Your task to perform on an android device: Go to location settings Image 0: 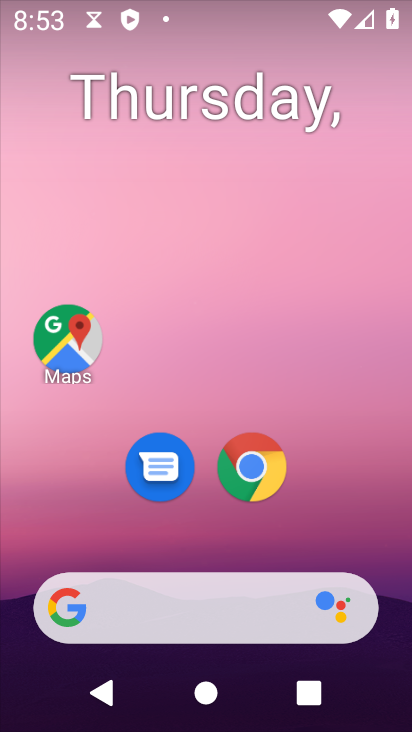
Step 0: drag from (226, 534) to (263, 134)
Your task to perform on an android device: Go to location settings Image 1: 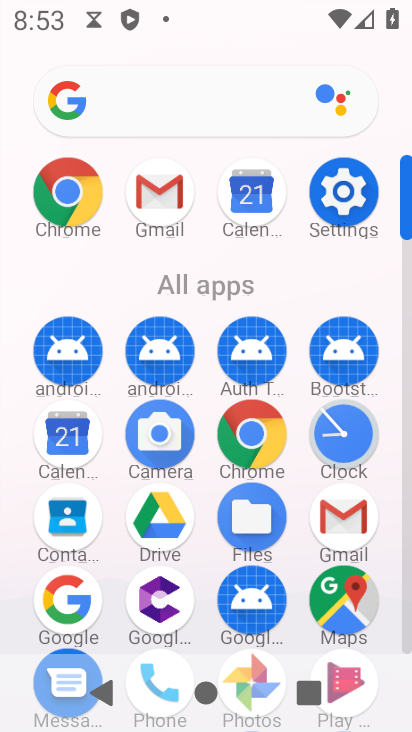
Step 1: click (320, 187)
Your task to perform on an android device: Go to location settings Image 2: 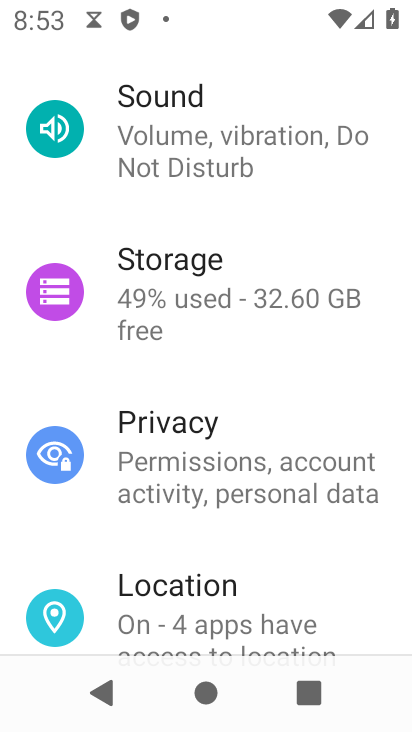
Step 2: drag from (278, 291) to (284, 221)
Your task to perform on an android device: Go to location settings Image 3: 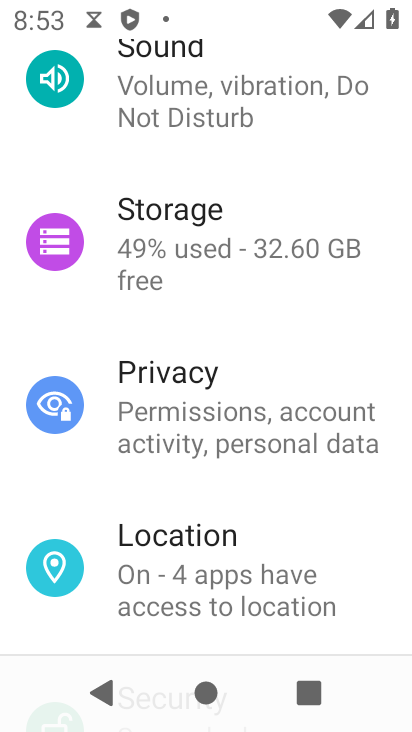
Step 3: click (182, 556)
Your task to perform on an android device: Go to location settings Image 4: 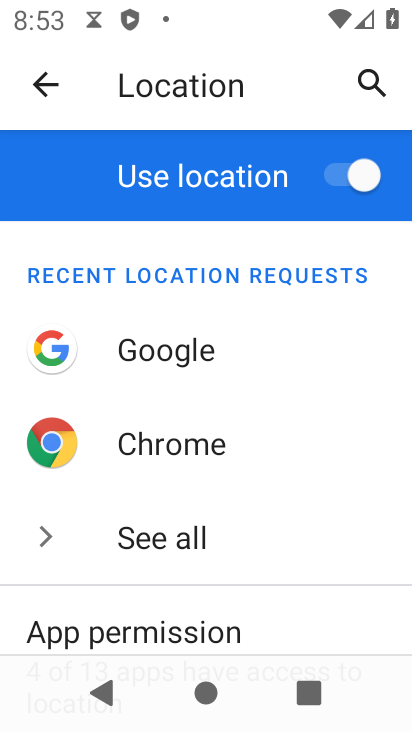
Step 4: task complete